Your task to perform on an android device: Go to display settings Image 0: 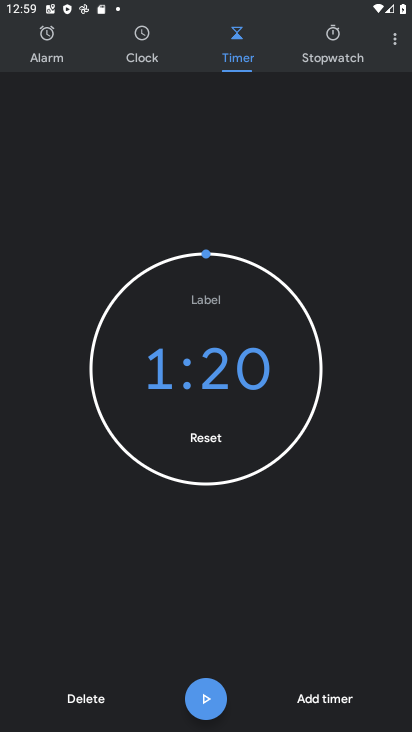
Step 0: press home button
Your task to perform on an android device: Go to display settings Image 1: 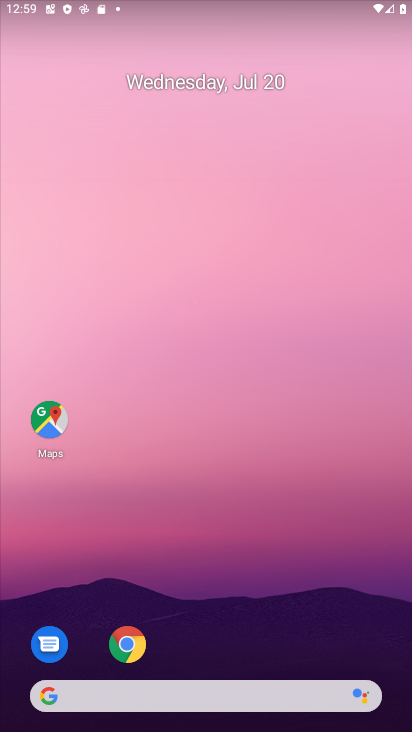
Step 1: drag from (319, 508) to (271, 202)
Your task to perform on an android device: Go to display settings Image 2: 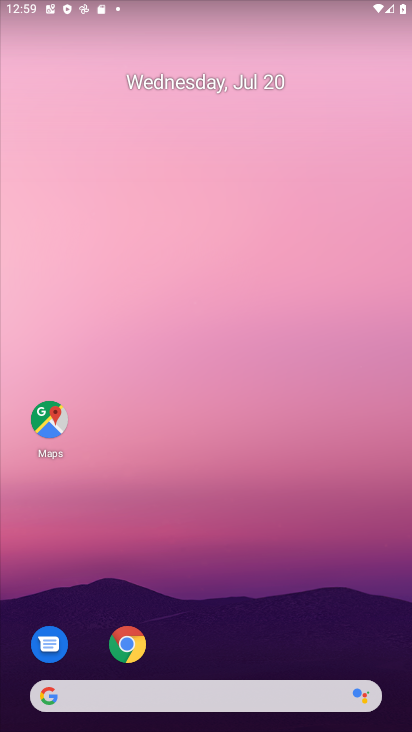
Step 2: drag from (292, 576) to (147, 22)
Your task to perform on an android device: Go to display settings Image 3: 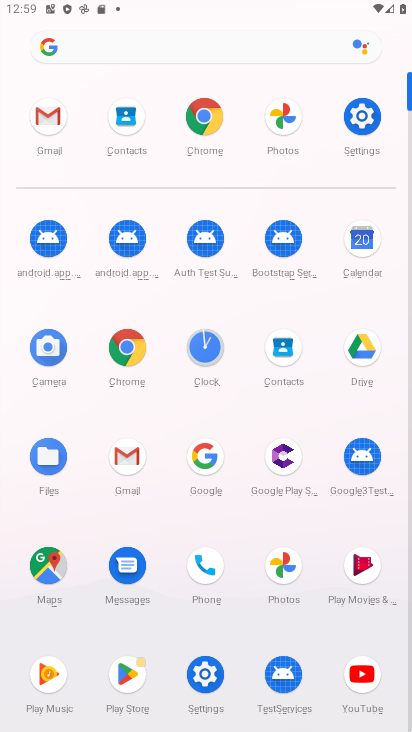
Step 3: click (380, 125)
Your task to perform on an android device: Go to display settings Image 4: 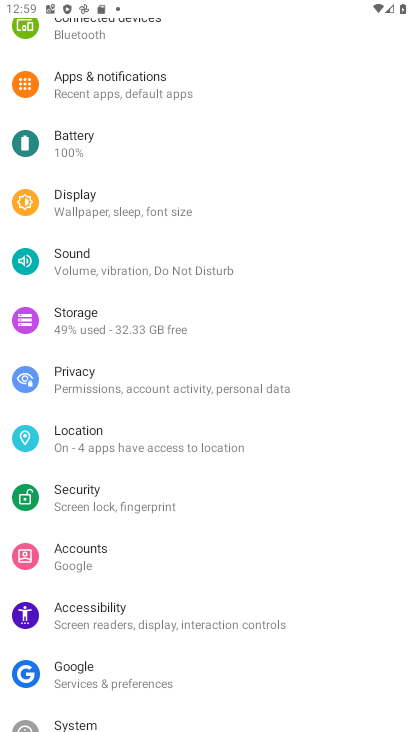
Step 4: click (59, 188)
Your task to perform on an android device: Go to display settings Image 5: 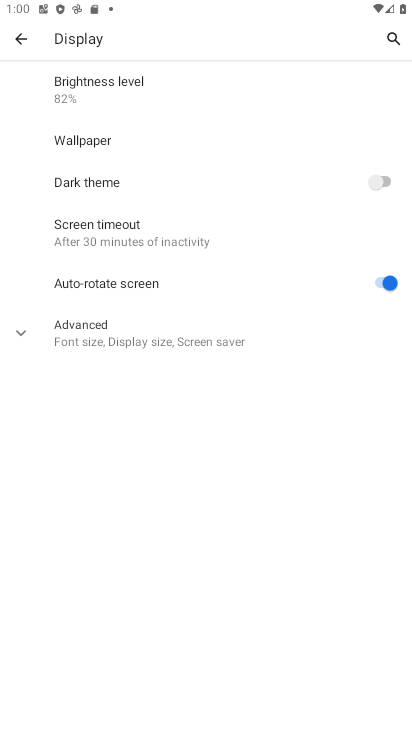
Step 5: task complete